Your task to perform on an android device: turn on wifi Image 0: 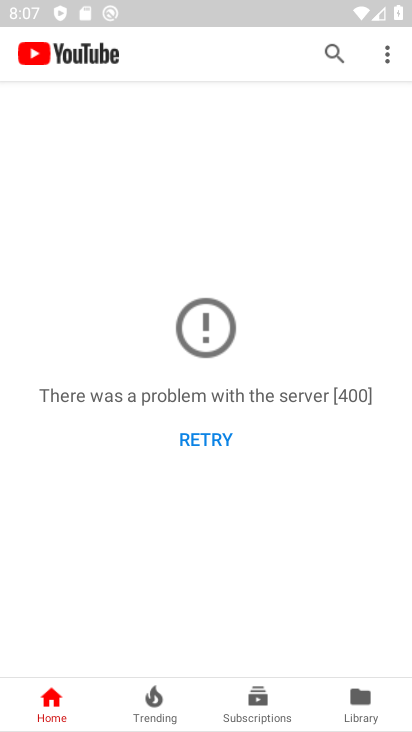
Step 0: press back button
Your task to perform on an android device: turn on wifi Image 1: 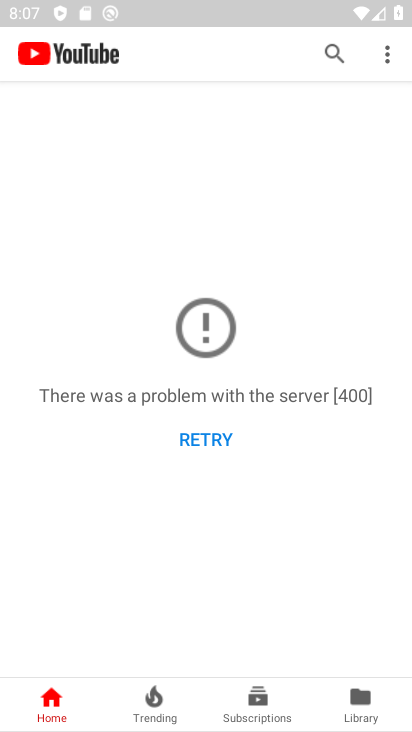
Step 1: task complete